Your task to perform on an android device: Go to Wikipedia Image 0: 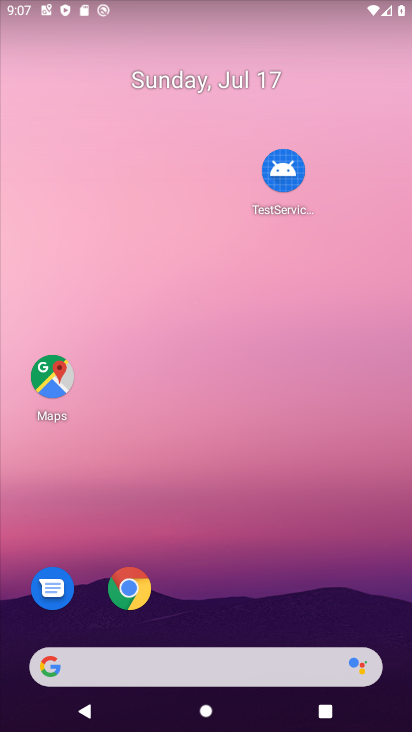
Step 0: drag from (233, 639) to (318, 144)
Your task to perform on an android device: Go to Wikipedia Image 1: 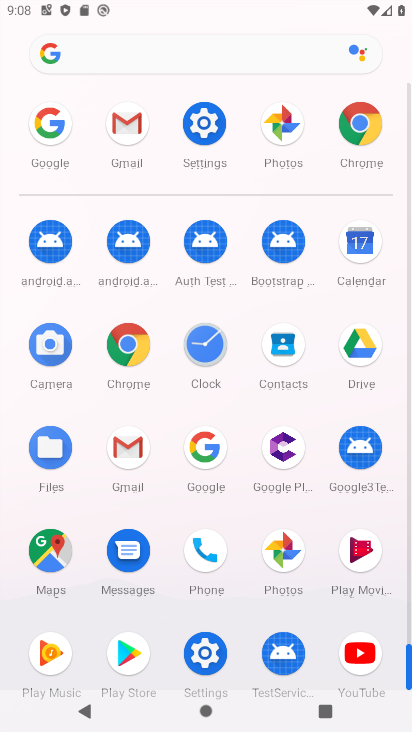
Step 1: click (369, 150)
Your task to perform on an android device: Go to Wikipedia Image 2: 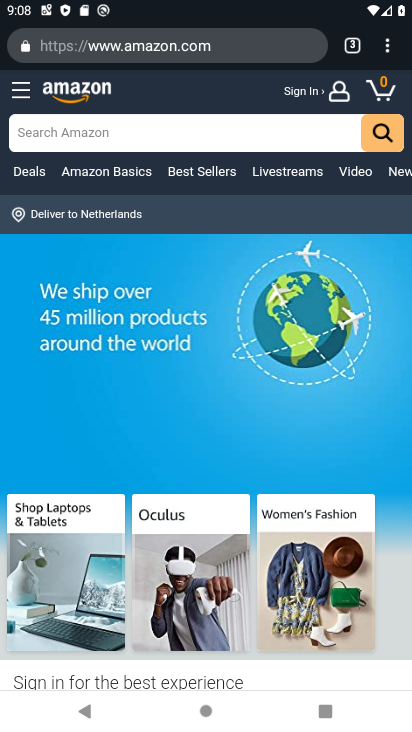
Step 2: click (275, 56)
Your task to perform on an android device: Go to Wikipedia Image 3: 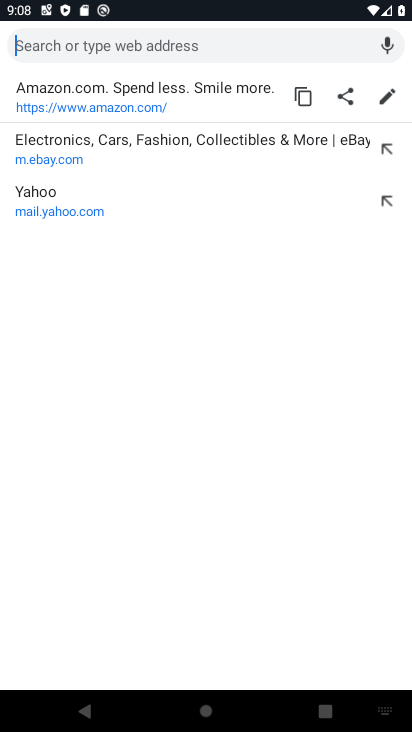
Step 3: type "wikipedia"
Your task to perform on an android device: Go to Wikipedia Image 4: 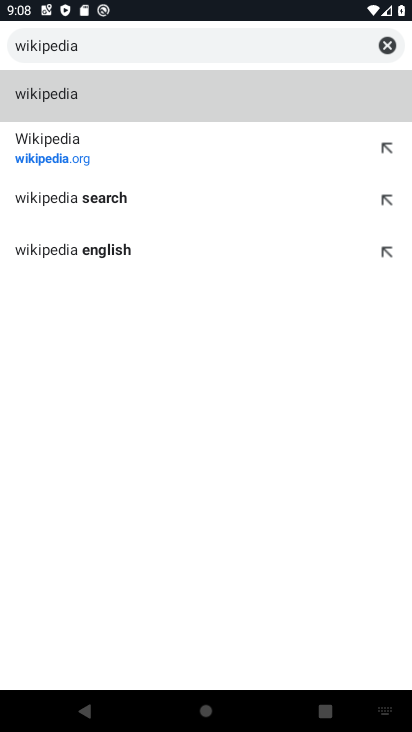
Step 4: click (63, 163)
Your task to perform on an android device: Go to Wikipedia Image 5: 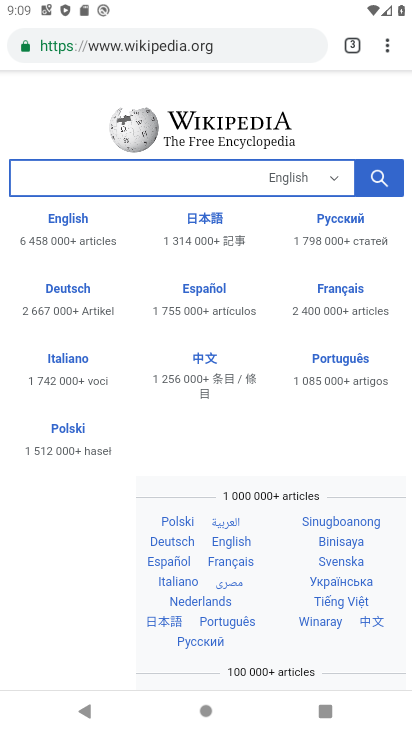
Step 5: task complete